Your task to perform on an android device: open a new tab in the chrome app Image 0: 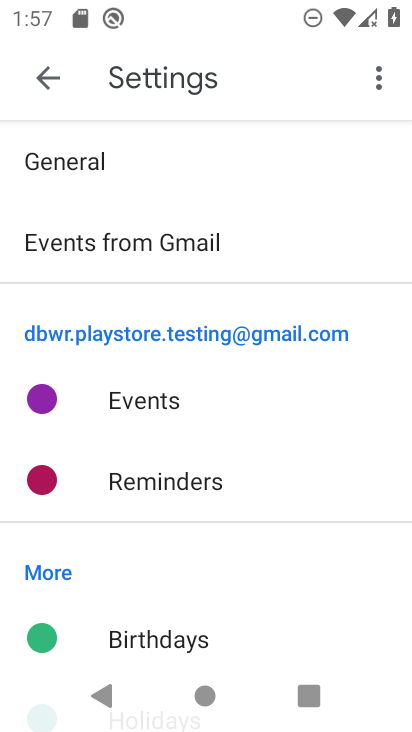
Step 0: press back button
Your task to perform on an android device: open a new tab in the chrome app Image 1: 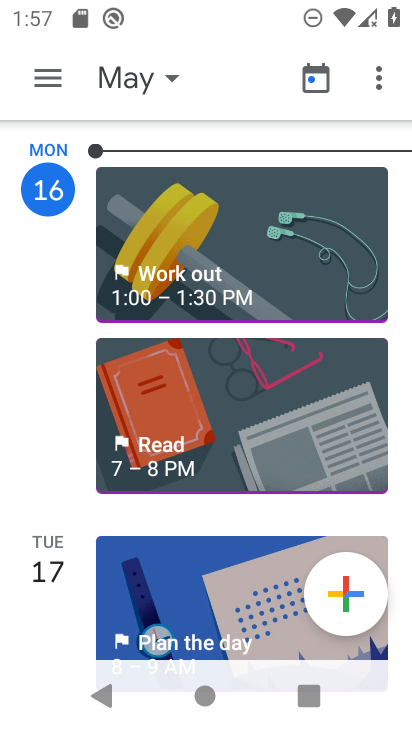
Step 1: press home button
Your task to perform on an android device: open a new tab in the chrome app Image 2: 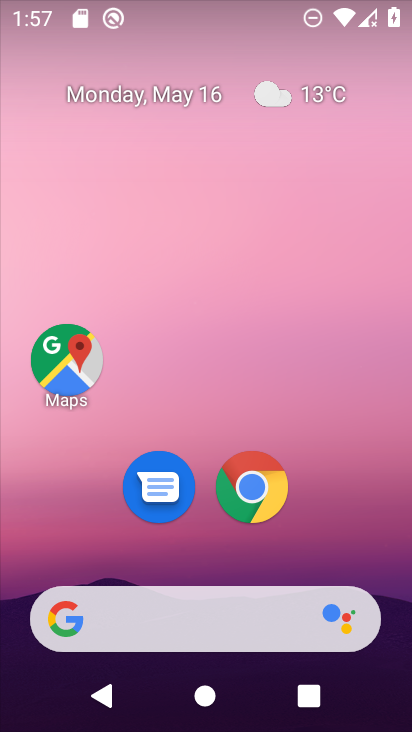
Step 2: click (235, 488)
Your task to perform on an android device: open a new tab in the chrome app Image 3: 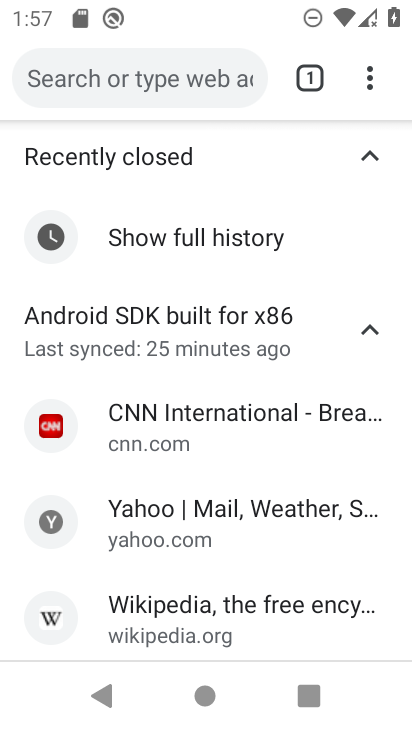
Step 3: click (365, 78)
Your task to perform on an android device: open a new tab in the chrome app Image 4: 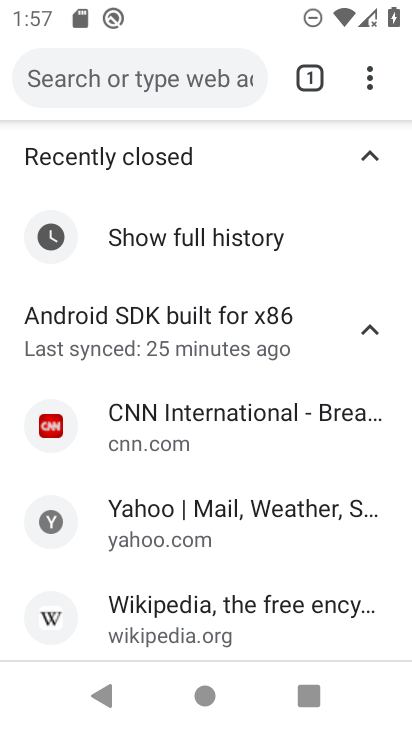
Step 4: click (368, 72)
Your task to perform on an android device: open a new tab in the chrome app Image 5: 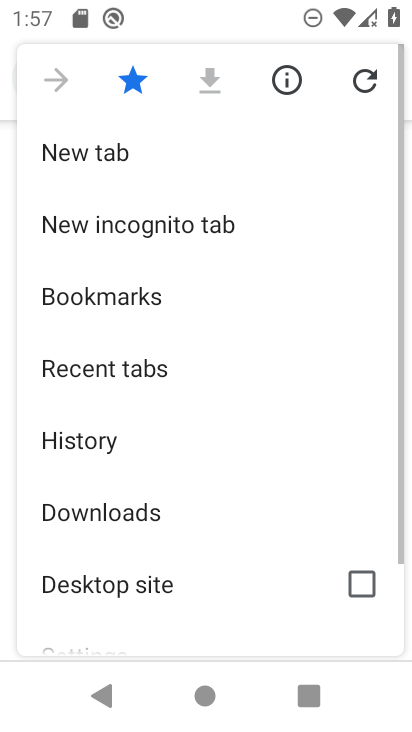
Step 5: click (78, 155)
Your task to perform on an android device: open a new tab in the chrome app Image 6: 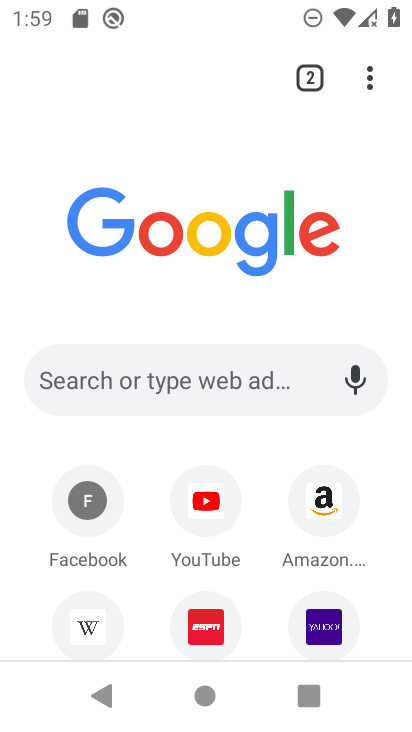
Step 6: task complete